Your task to perform on an android device: Is it going to rain this weekend? Image 0: 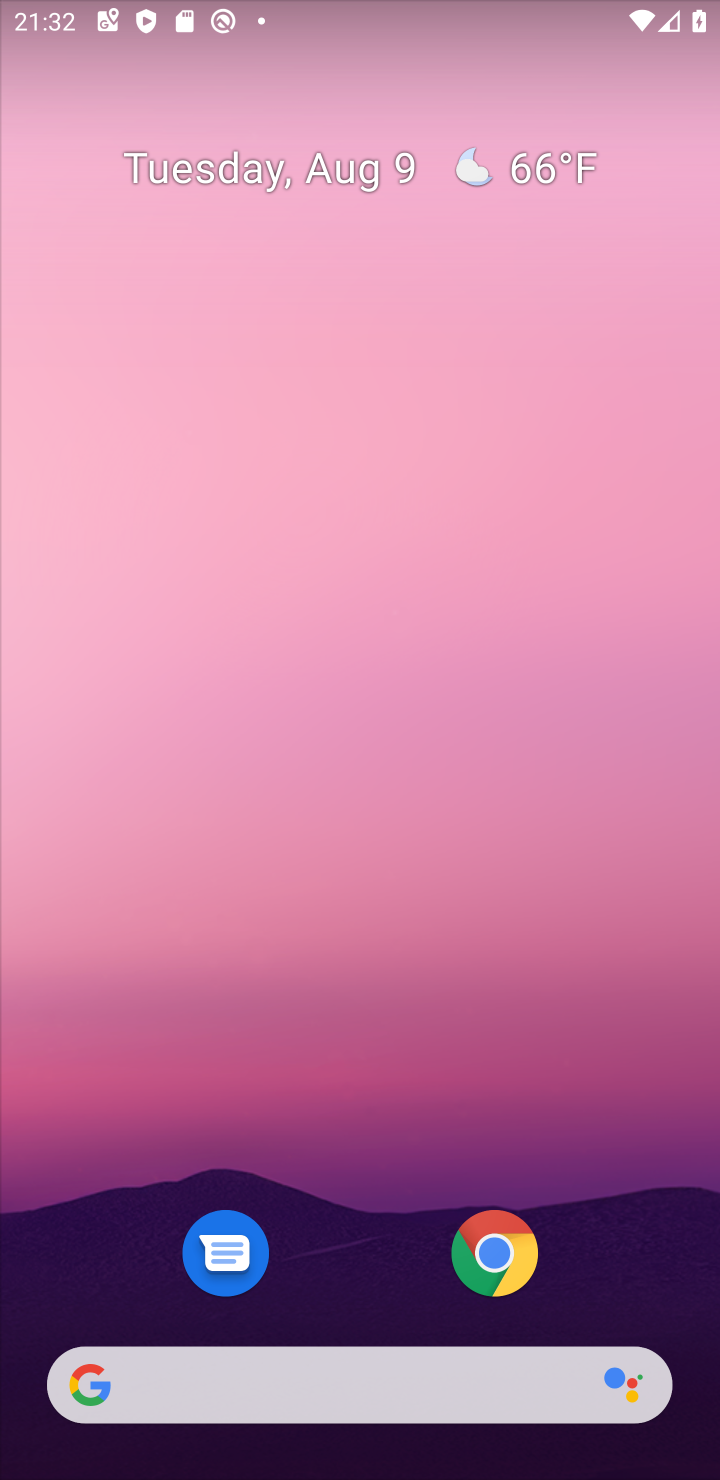
Step 0: click (489, 168)
Your task to perform on an android device: Is it going to rain this weekend? Image 1: 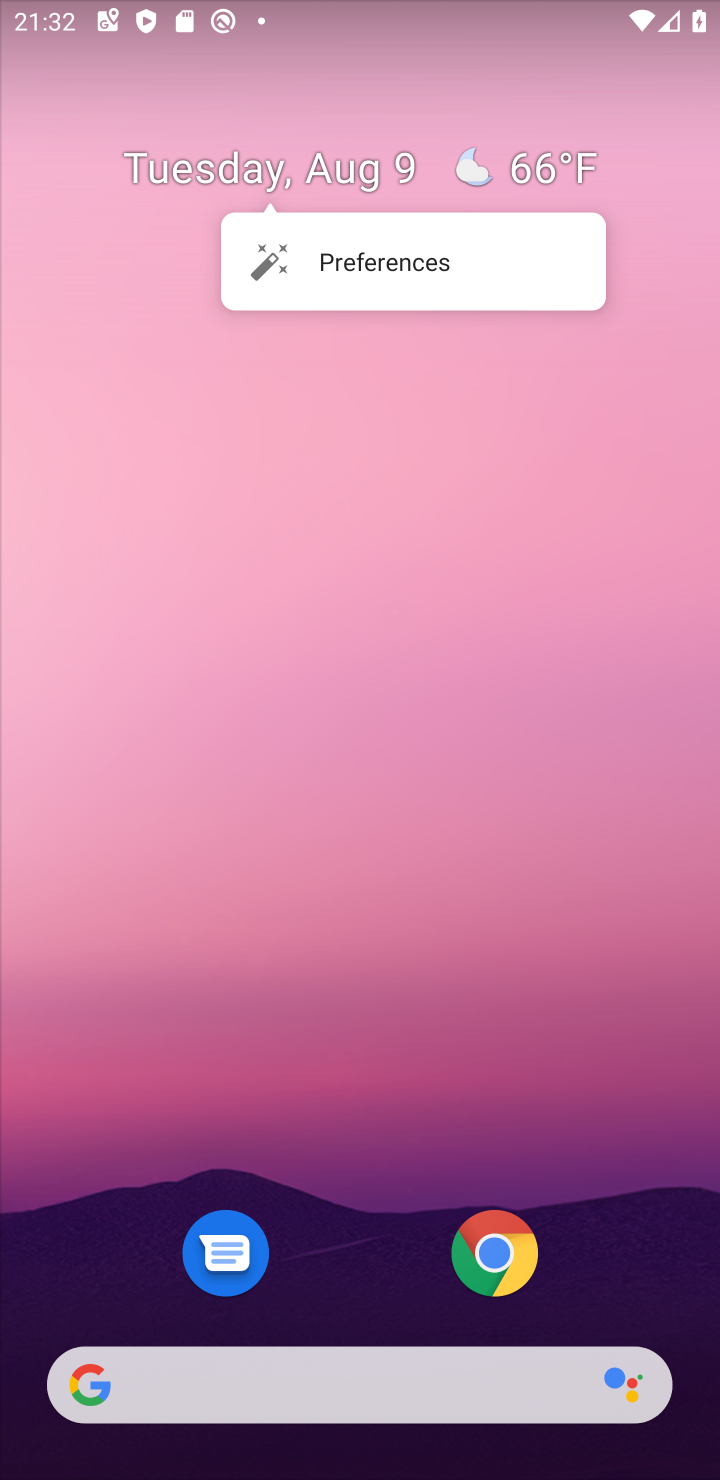
Step 1: click (554, 176)
Your task to perform on an android device: Is it going to rain this weekend? Image 2: 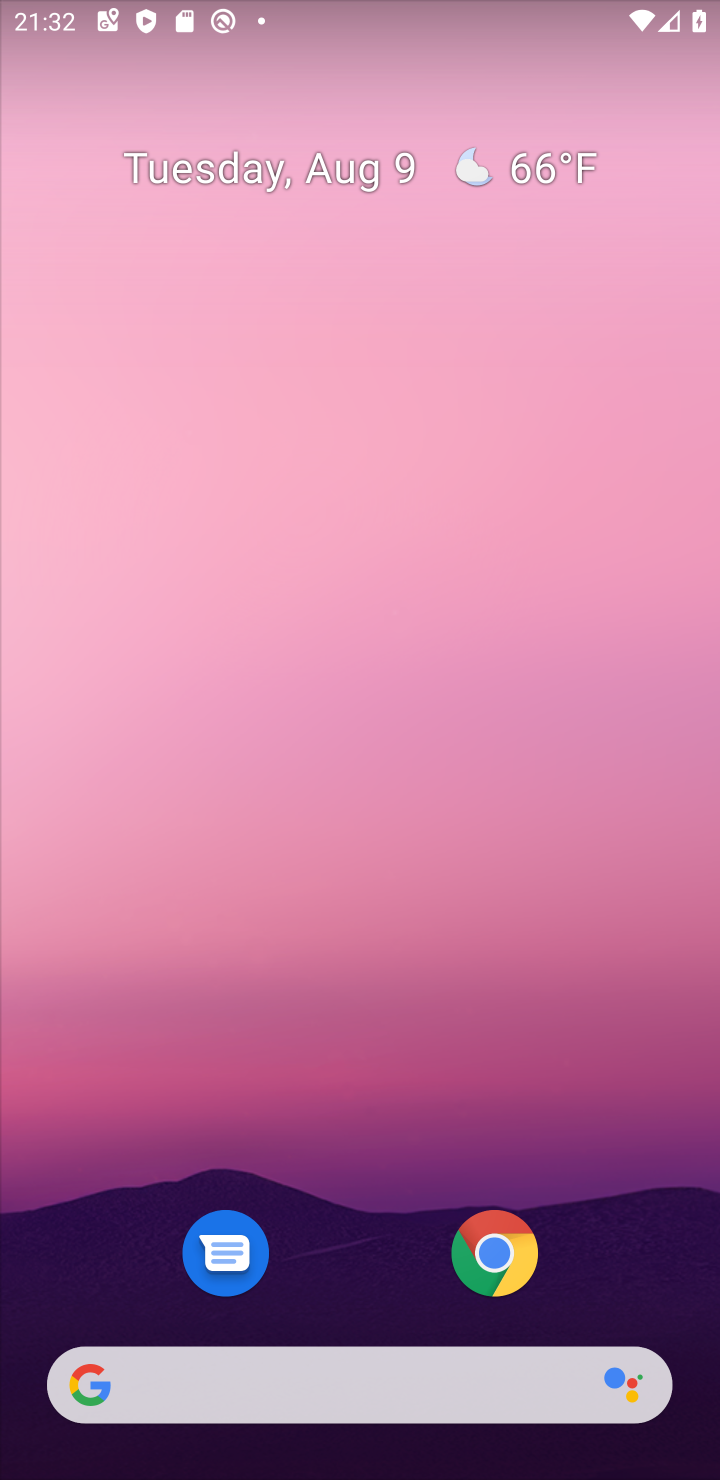
Step 2: click (545, 172)
Your task to perform on an android device: Is it going to rain this weekend? Image 3: 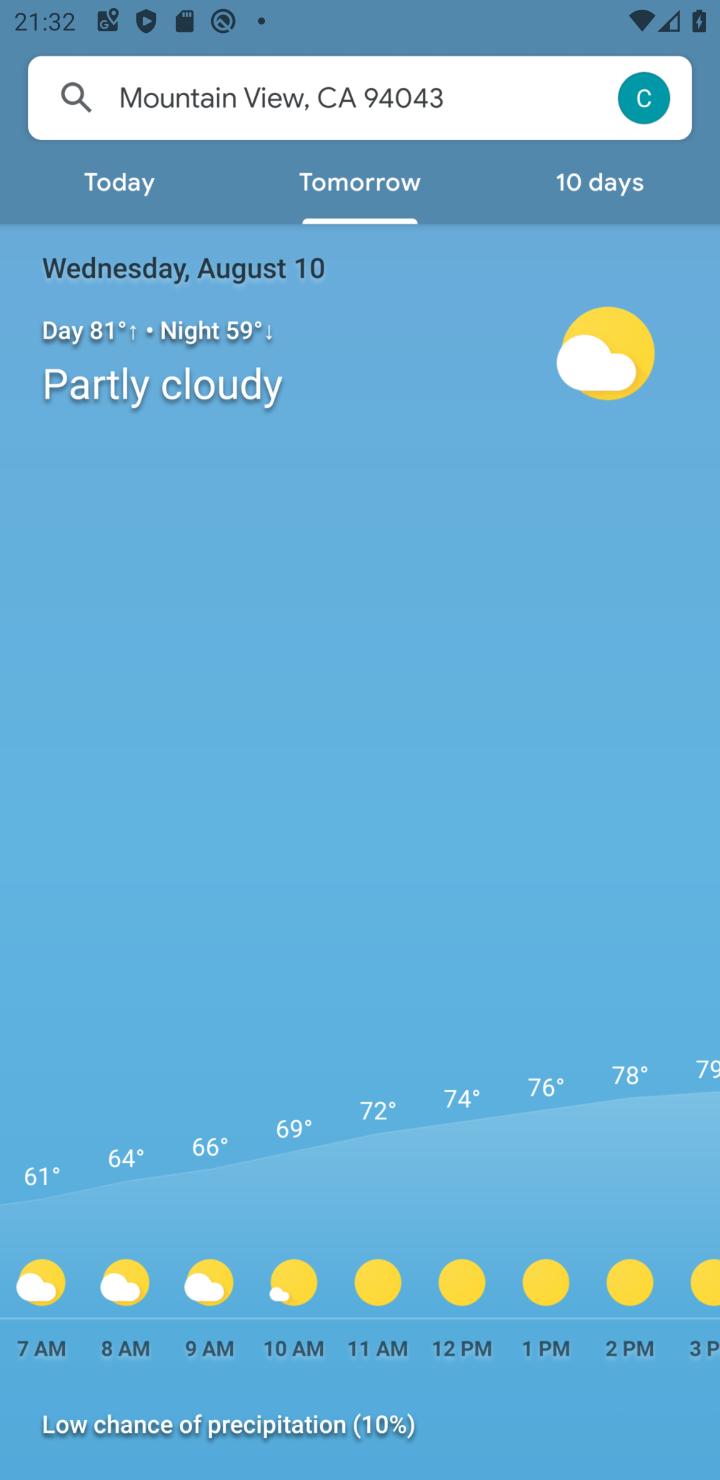
Step 3: click (536, 172)
Your task to perform on an android device: Is it going to rain this weekend? Image 4: 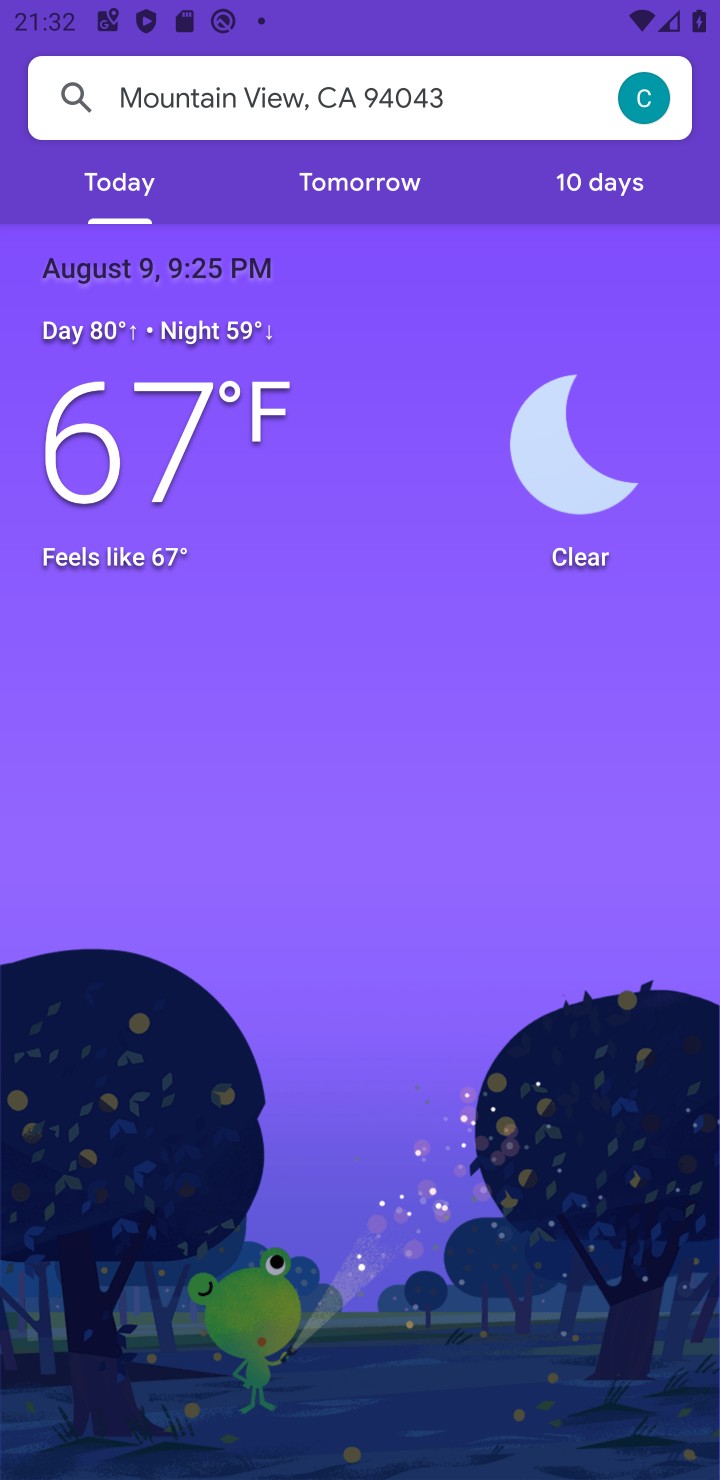
Step 4: click (335, 210)
Your task to perform on an android device: Is it going to rain this weekend? Image 5: 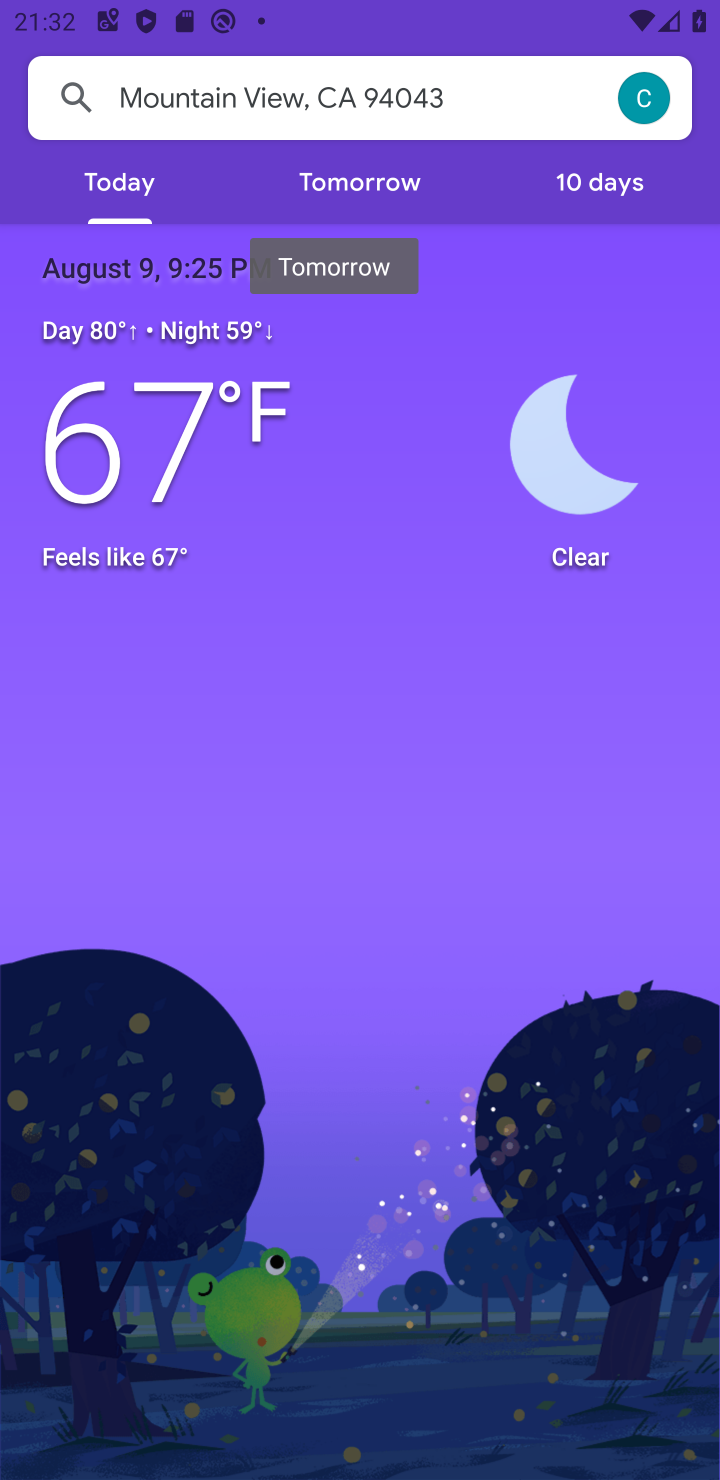
Step 5: click (614, 191)
Your task to perform on an android device: Is it going to rain this weekend? Image 6: 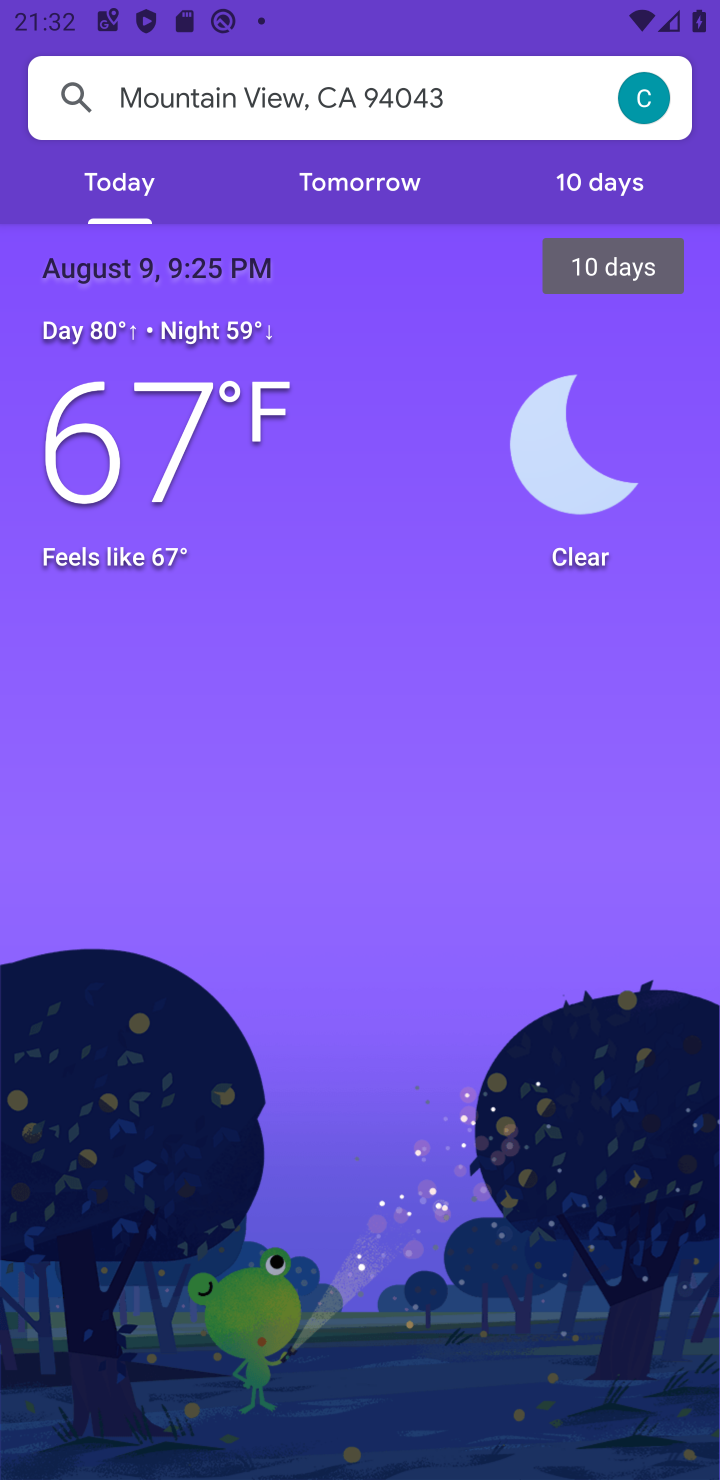
Step 6: click (614, 191)
Your task to perform on an android device: Is it going to rain this weekend? Image 7: 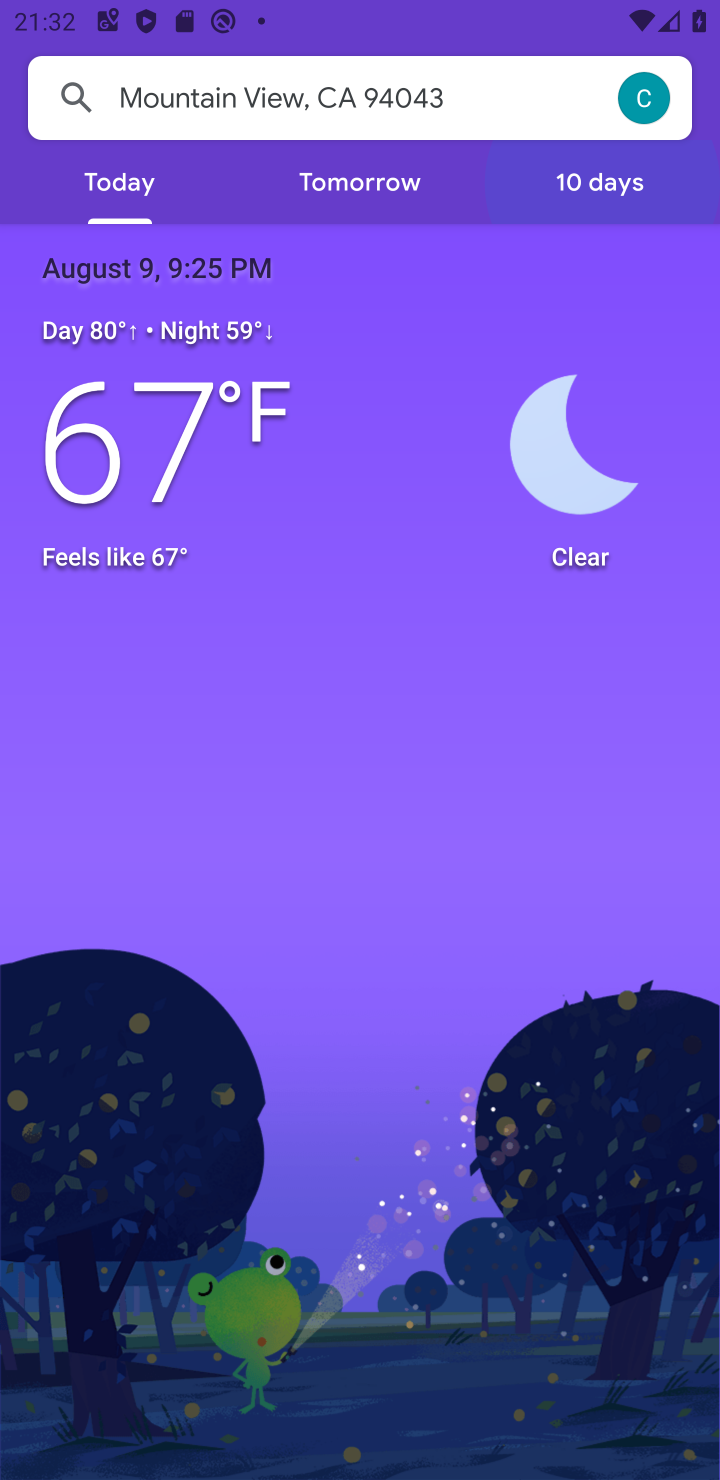
Step 7: click (608, 189)
Your task to perform on an android device: Is it going to rain this weekend? Image 8: 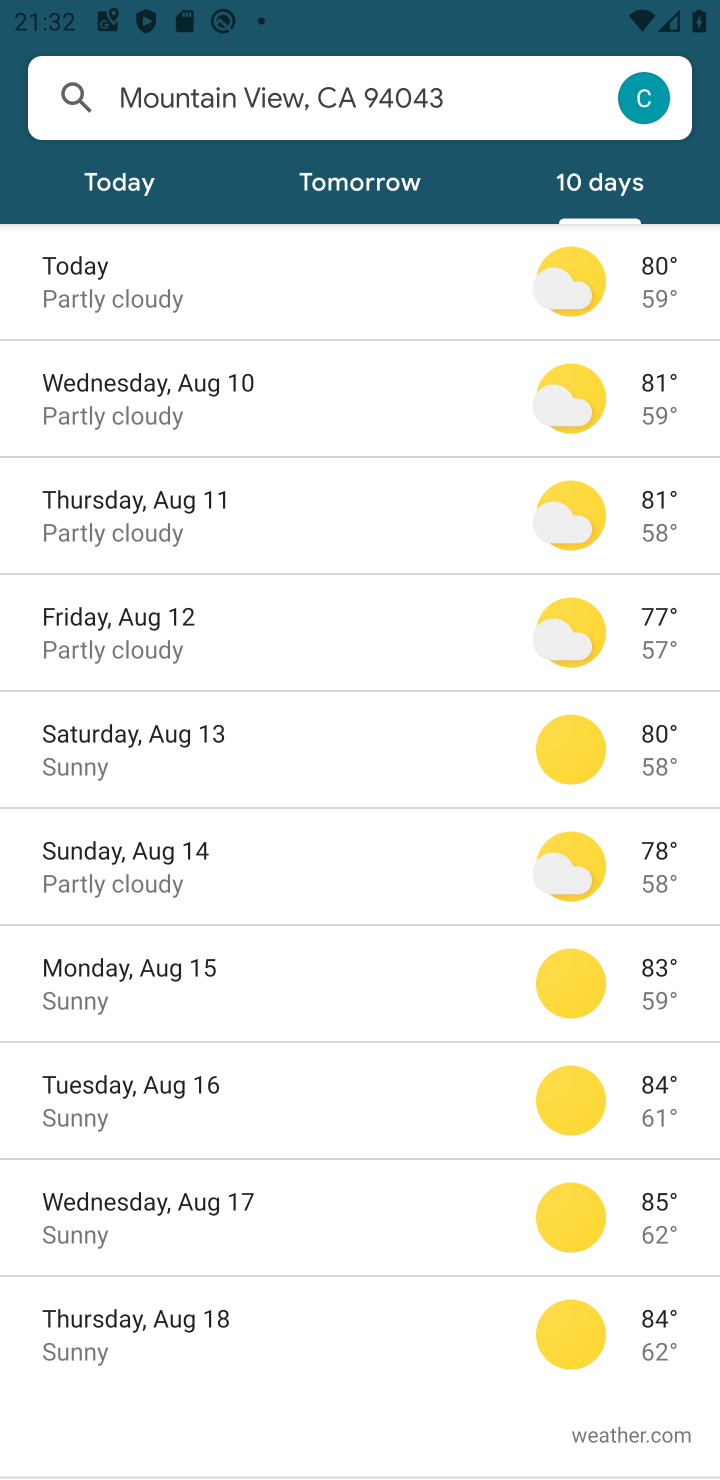
Step 8: click (127, 749)
Your task to perform on an android device: Is it going to rain this weekend? Image 9: 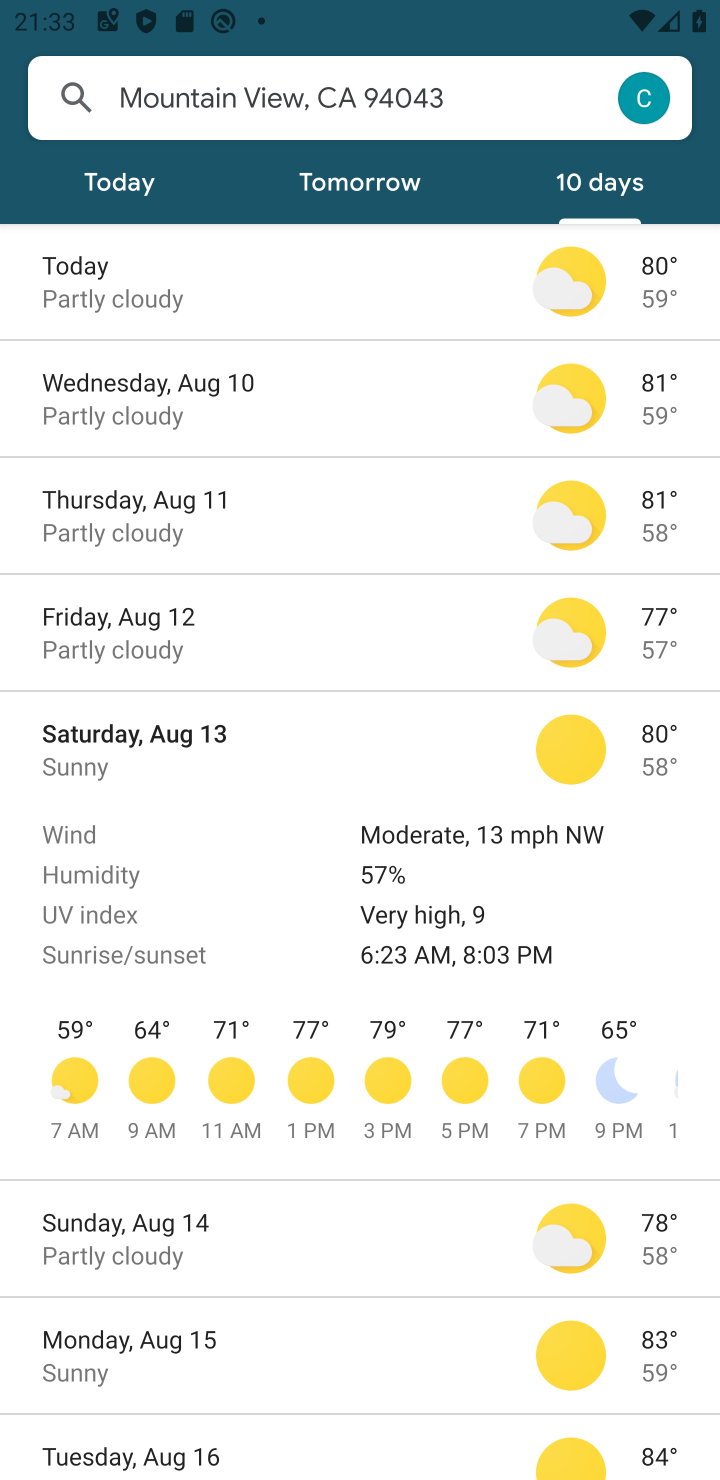
Step 9: task complete